Your task to perform on an android device: delete the emails in spam in the gmail app Image 0: 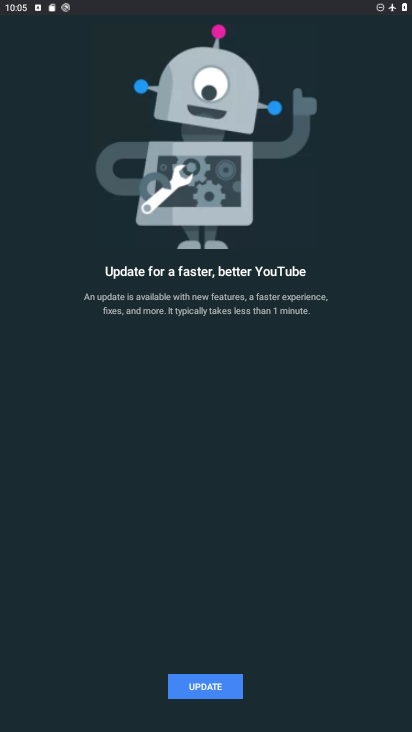
Step 0: press home button
Your task to perform on an android device: delete the emails in spam in the gmail app Image 1: 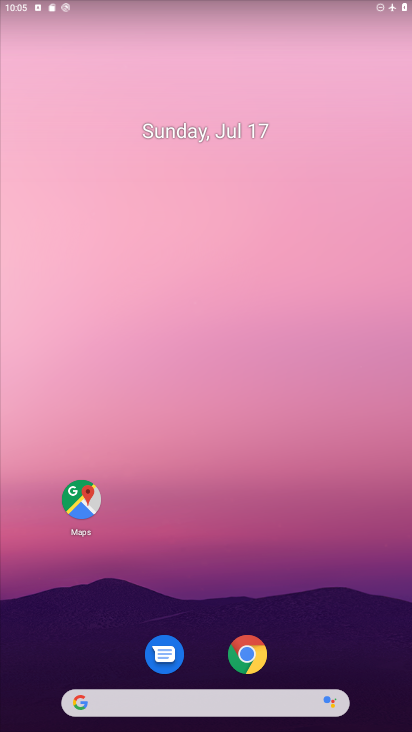
Step 1: drag from (197, 623) to (197, 97)
Your task to perform on an android device: delete the emails in spam in the gmail app Image 2: 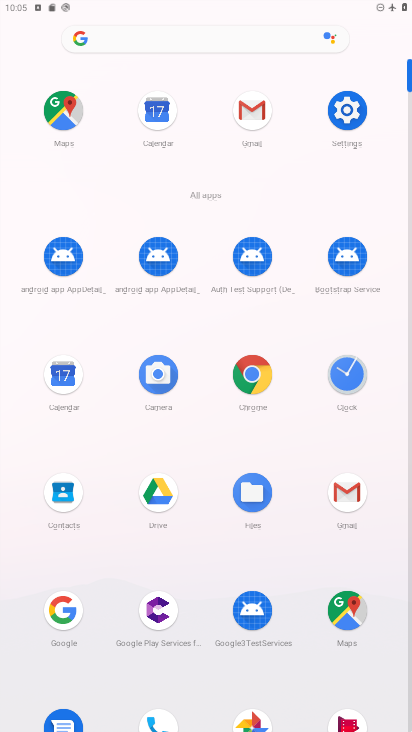
Step 2: click (241, 103)
Your task to perform on an android device: delete the emails in spam in the gmail app Image 3: 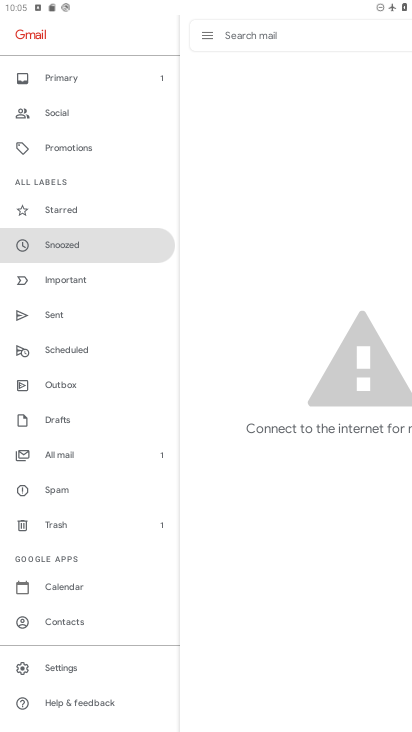
Step 3: click (61, 483)
Your task to perform on an android device: delete the emails in spam in the gmail app Image 4: 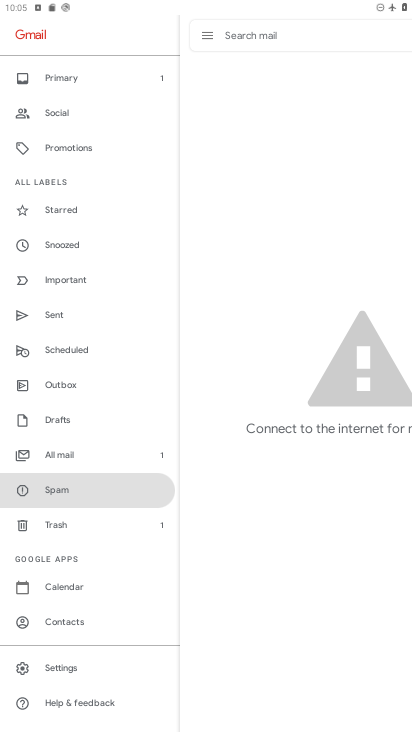
Step 4: task complete